Your task to perform on an android device: change your default location settings in chrome Image 0: 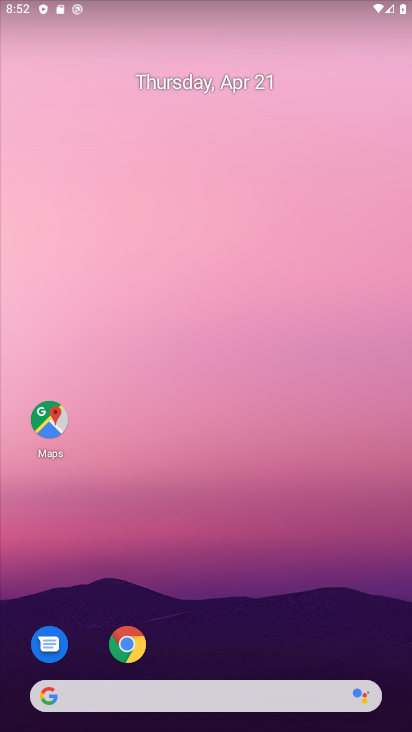
Step 0: drag from (278, 499) to (223, 2)
Your task to perform on an android device: change your default location settings in chrome Image 1: 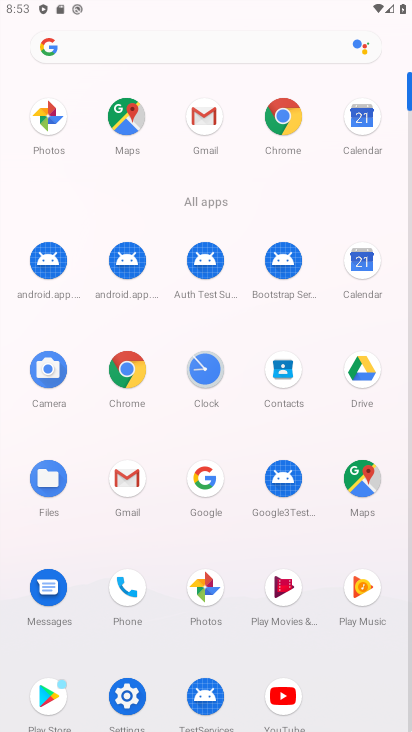
Step 1: click (294, 116)
Your task to perform on an android device: change your default location settings in chrome Image 2: 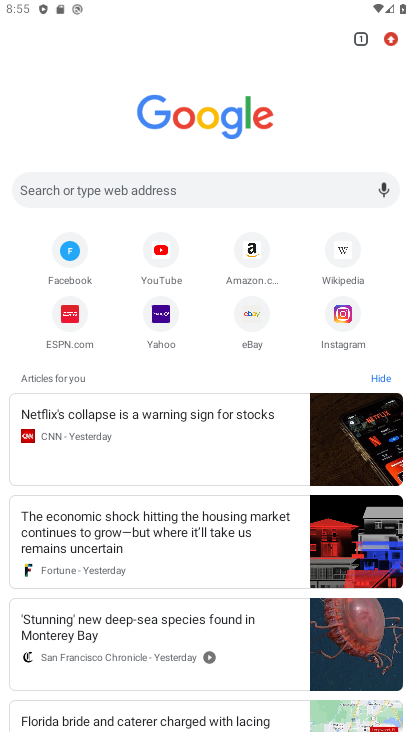
Step 2: drag from (401, 34) to (282, 368)
Your task to perform on an android device: change your default location settings in chrome Image 3: 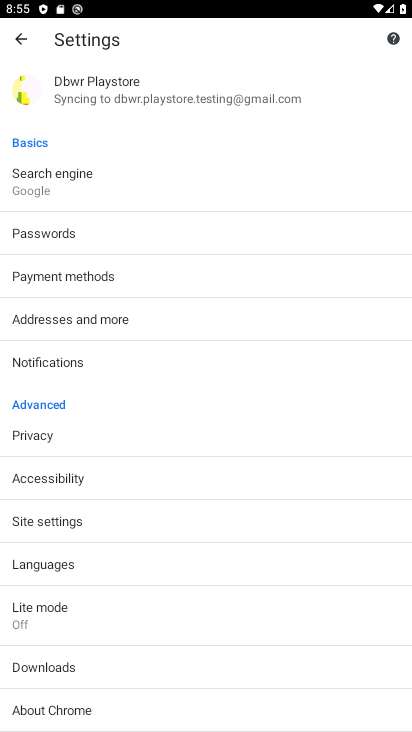
Step 3: click (105, 526)
Your task to perform on an android device: change your default location settings in chrome Image 4: 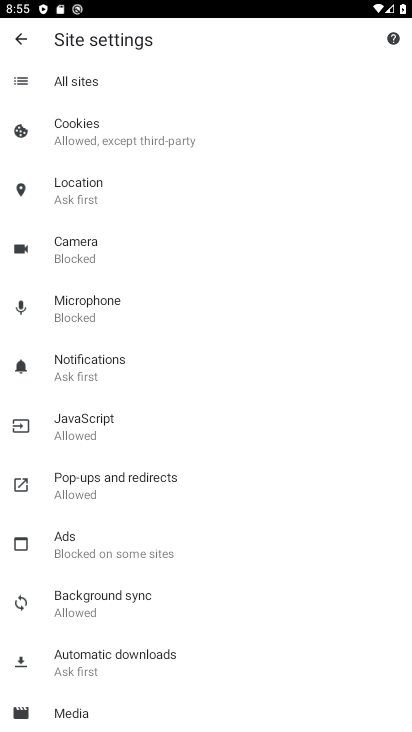
Step 4: click (85, 181)
Your task to perform on an android device: change your default location settings in chrome Image 5: 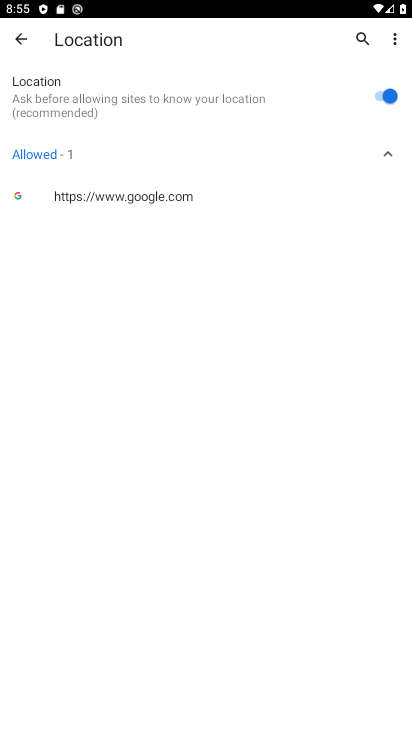
Step 5: click (385, 92)
Your task to perform on an android device: change your default location settings in chrome Image 6: 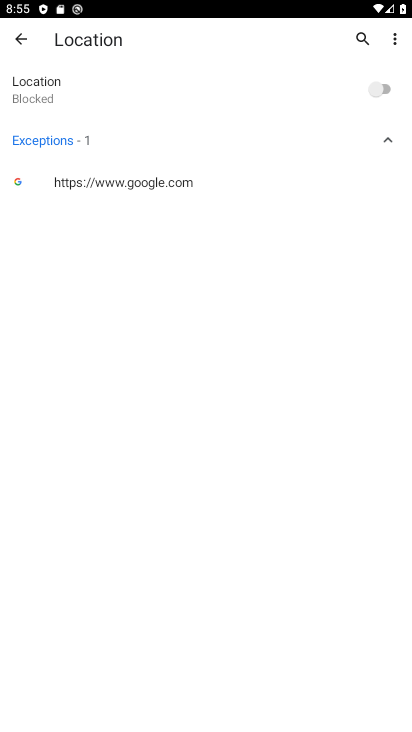
Step 6: task complete